Your task to perform on an android device: Open maps Image 0: 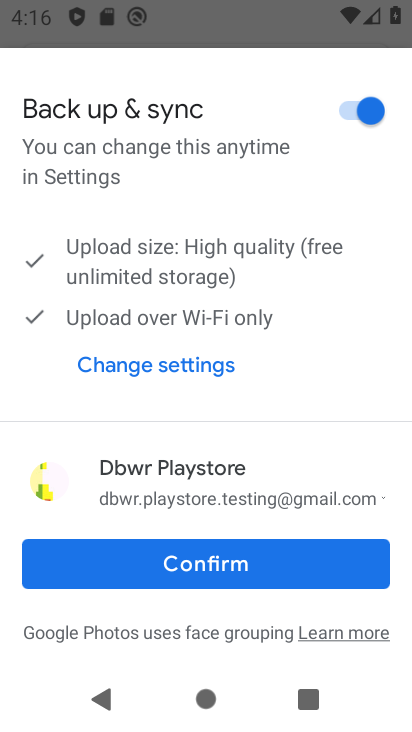
Step 0: press home button
Your task to perform on an android device: Open maps Image 1: 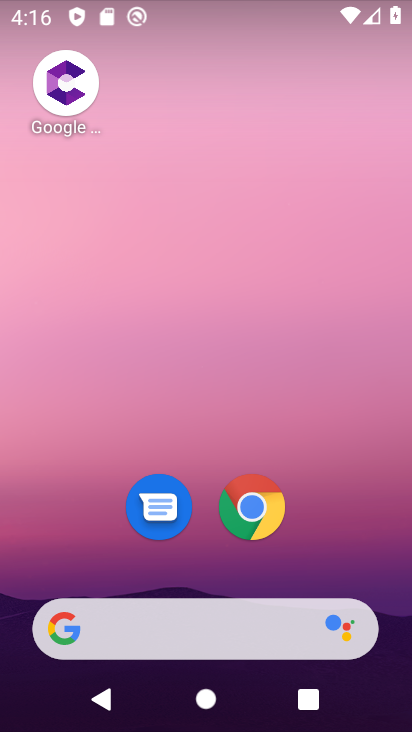
Step 1: drag from (327, 526) to (229, 14)
Your task to perform on an android device: Open maps Image 2: 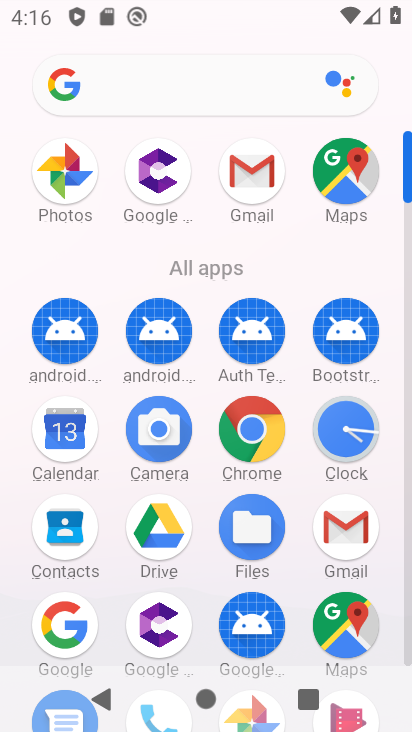
Step 2: click (341, 178)
Your task to perform on an android device: Open maps Image 3: 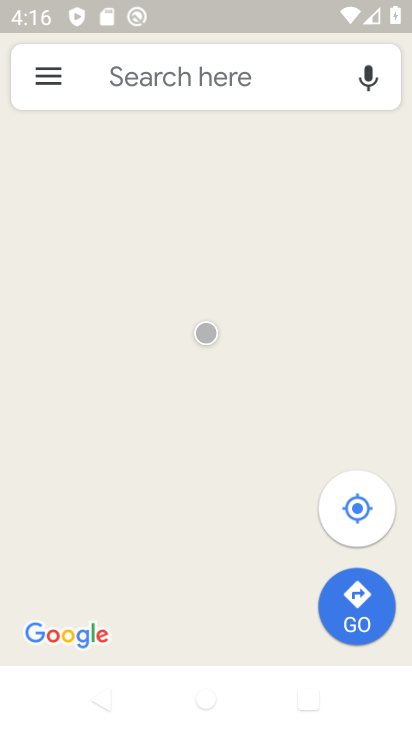
Step 3: task complete